Your task to perform on an android device: Open the map Image 0: 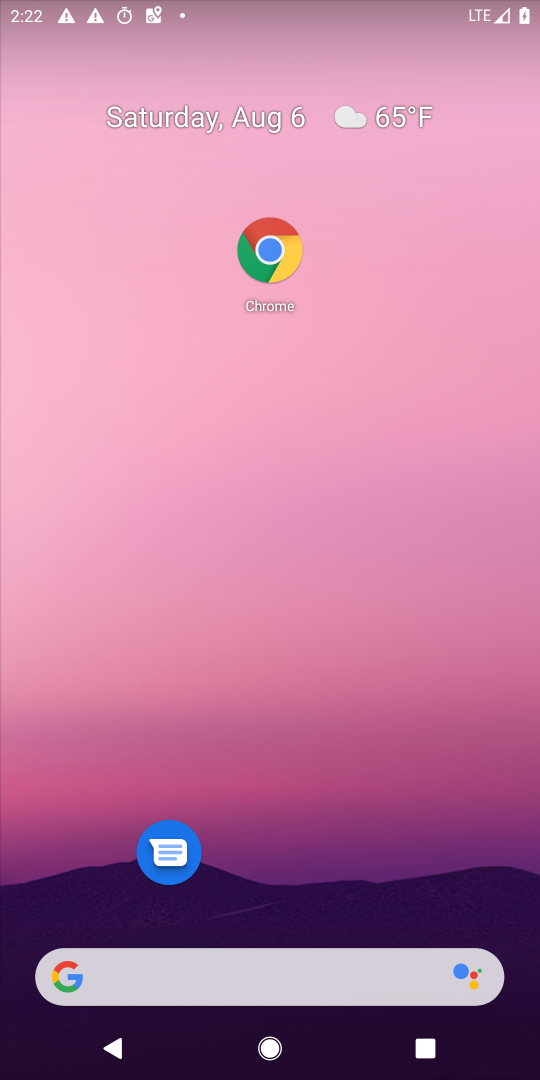
Step 0: press home button
Your task to perform on an android device: Open the map Image 1: 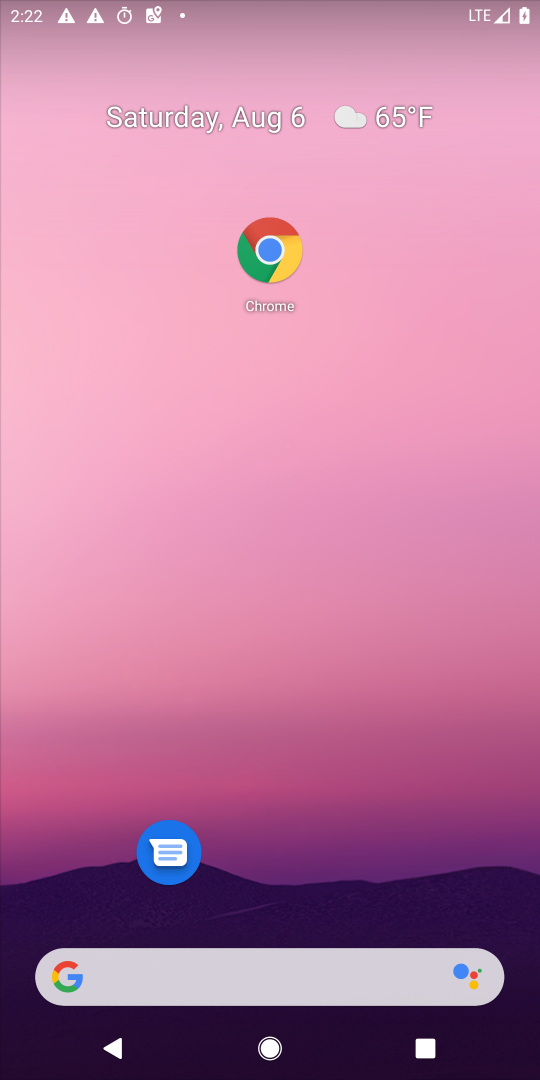
Step 1: drag from (425, 958) to (334, 387)
Your task to perform on an android device: Open the map Image 2: 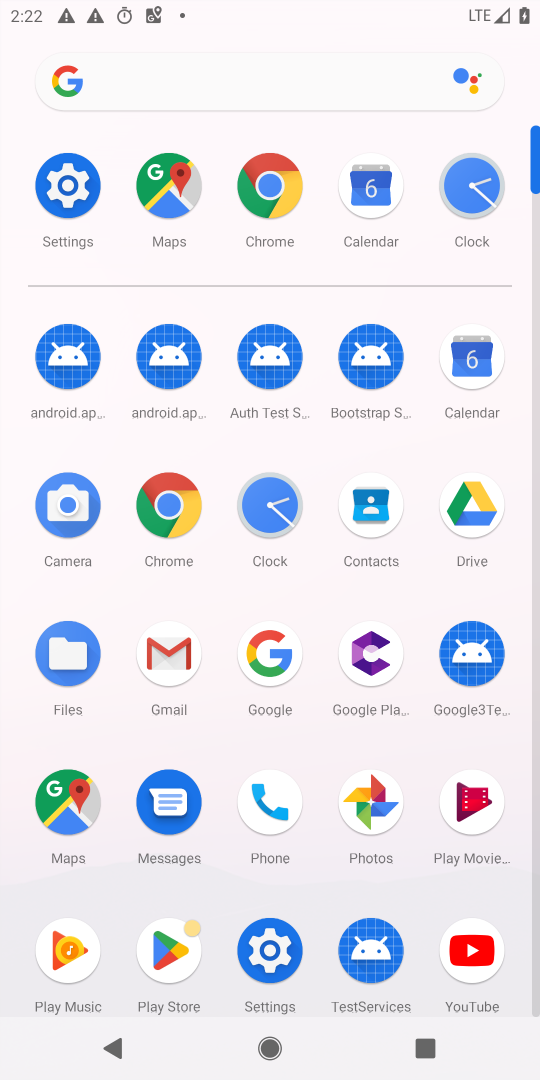
Step 2: click (67, 798)
Your task to perform on an android device: Open the map Image 3: 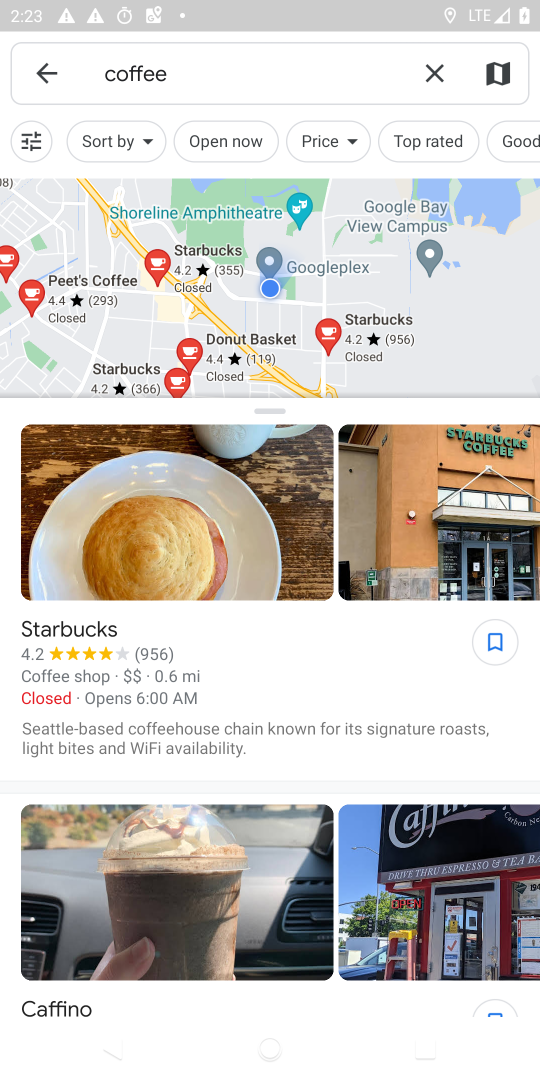
Step 3: click (43, 66)
Your task to perform on an android device: Open the map Image 4: 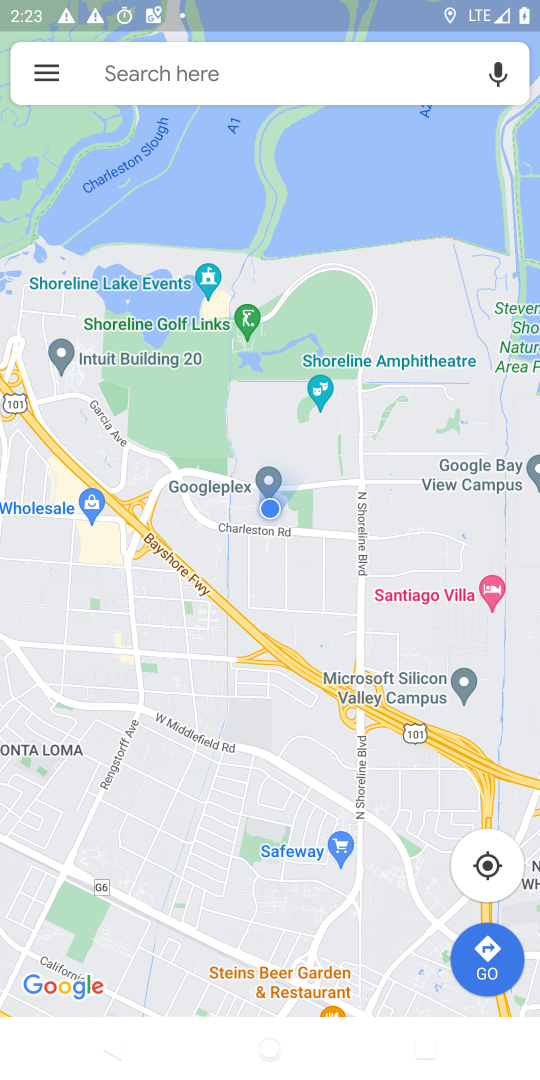
Step 4: click (485, 857)
Your task to perform on an android device: Open the map Image 5: 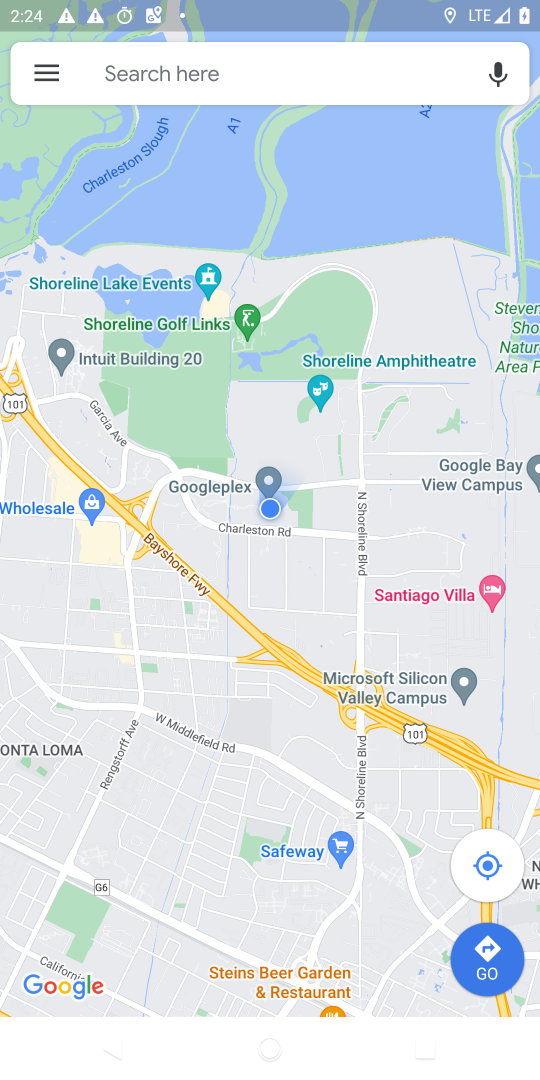
Step 5: task complete